Your task to perform on an android device: See recent photos Image 0: 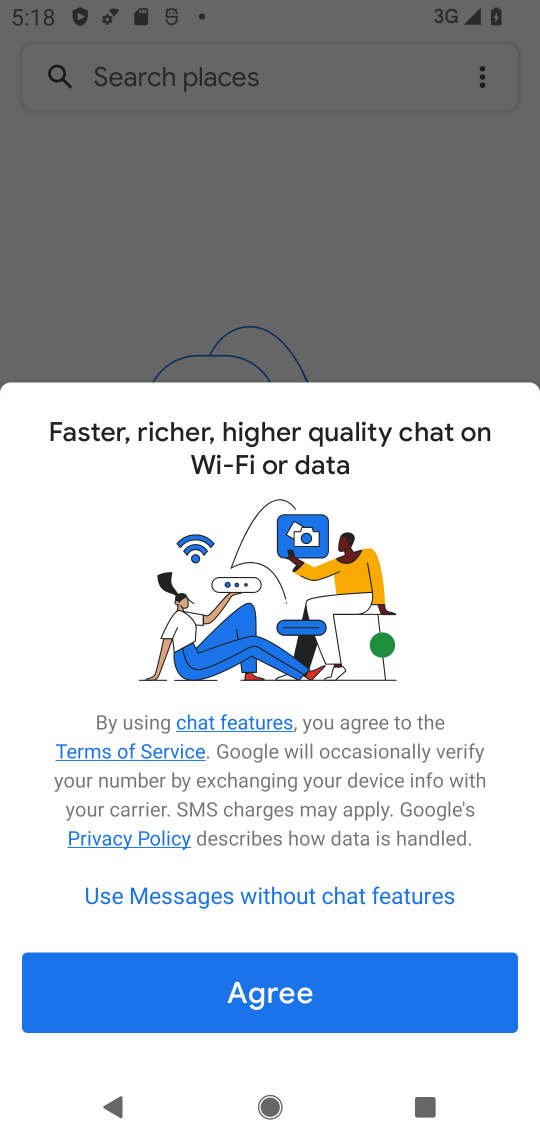
Step 0: press home button
Your task to perform on an android device: See recent photos Image 1: 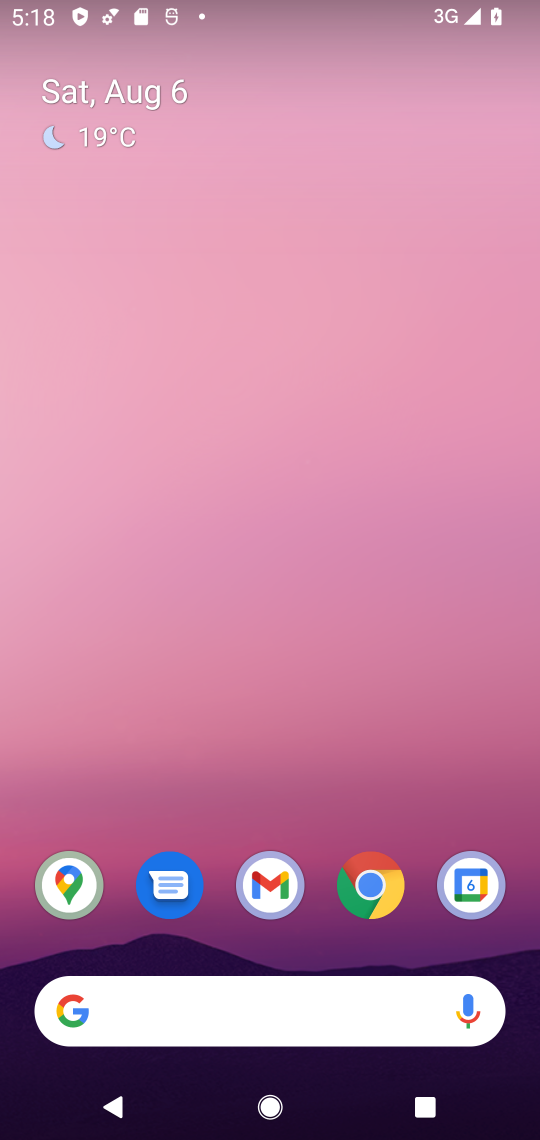
Step 1: drag from (431, 939) to (157, 33)
Your task to perform on an android device: See recent photos Image 2: 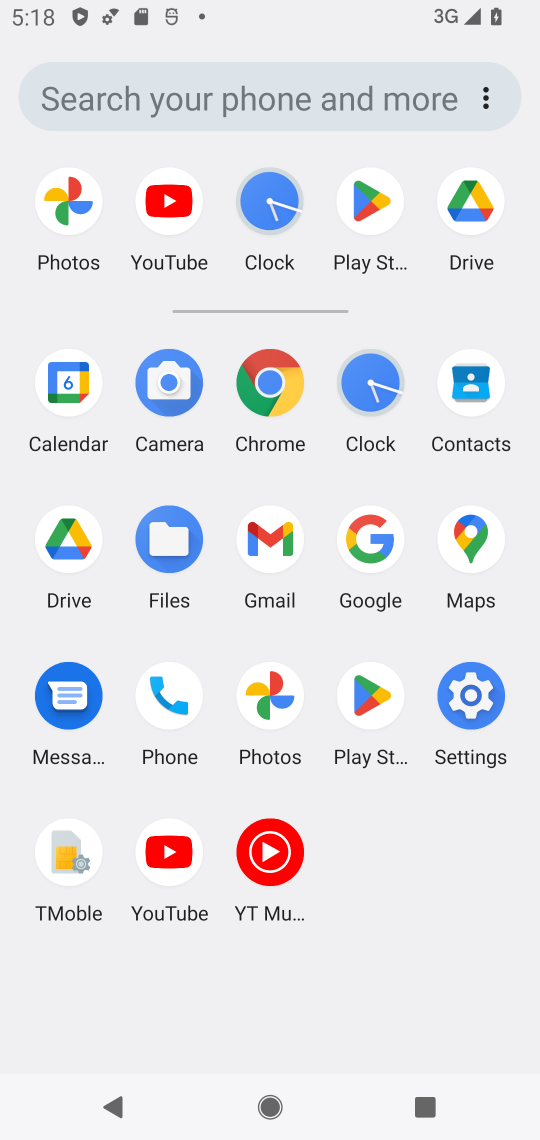
Step 2: click (297, 693)
Your task to perform on an android device: See recent photos Image 3: 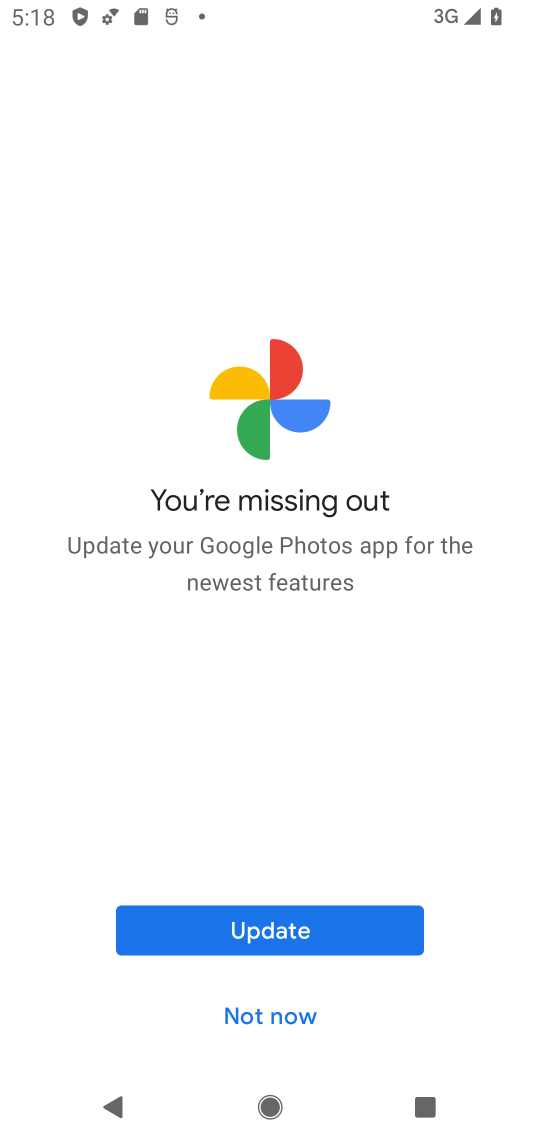
Step 3: click (274, 923)
Your task to perform on an android device: See recent photos Image 4: 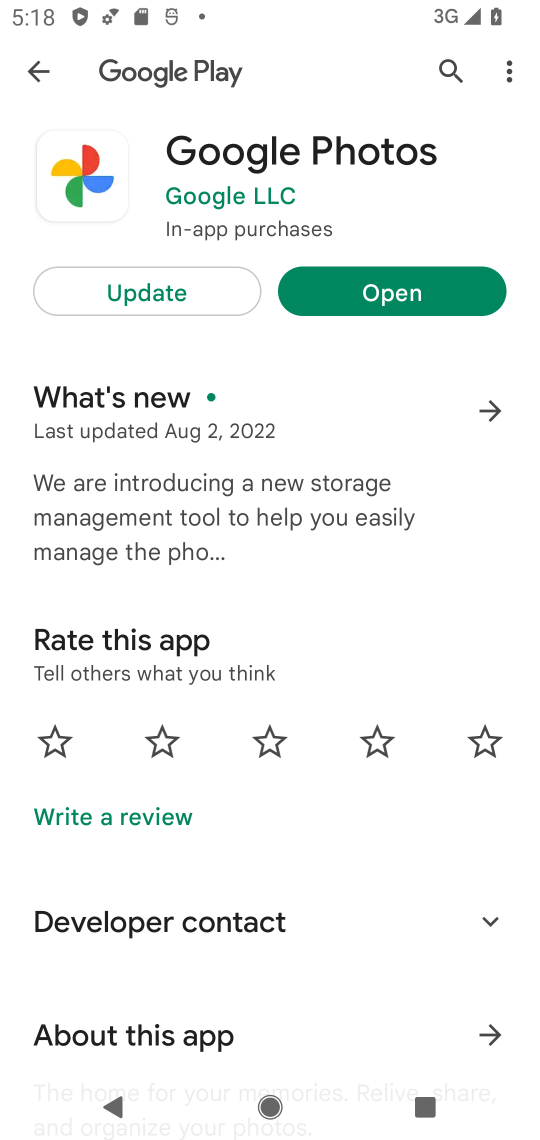
Step 4: click (131, 286)
Your task to perform on an android device: See recent photos Image 5: 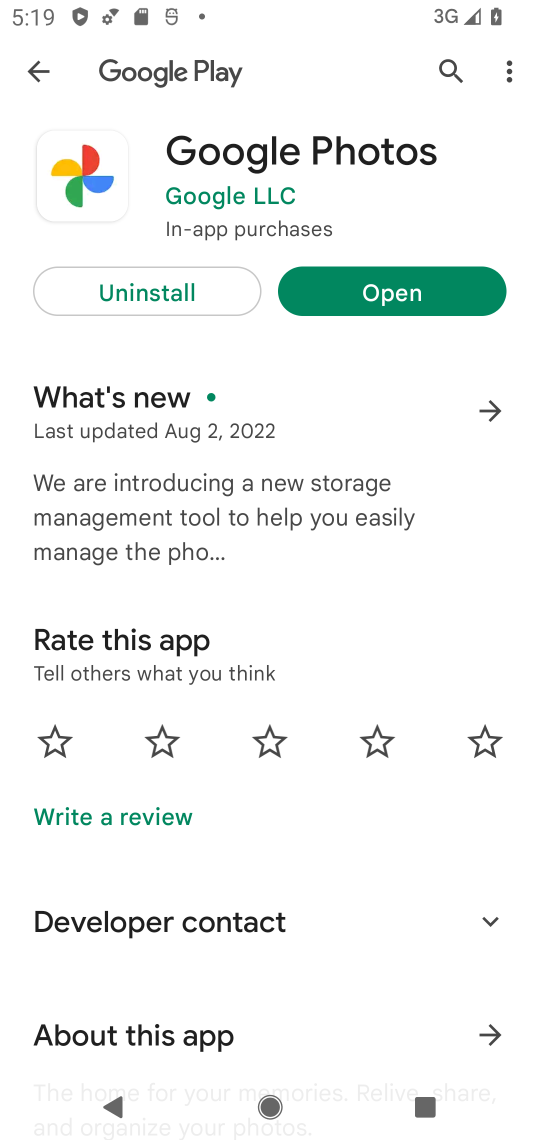
Step 5: click (406, 277)
Your task to perform on an android device: See recent photos Image 6: 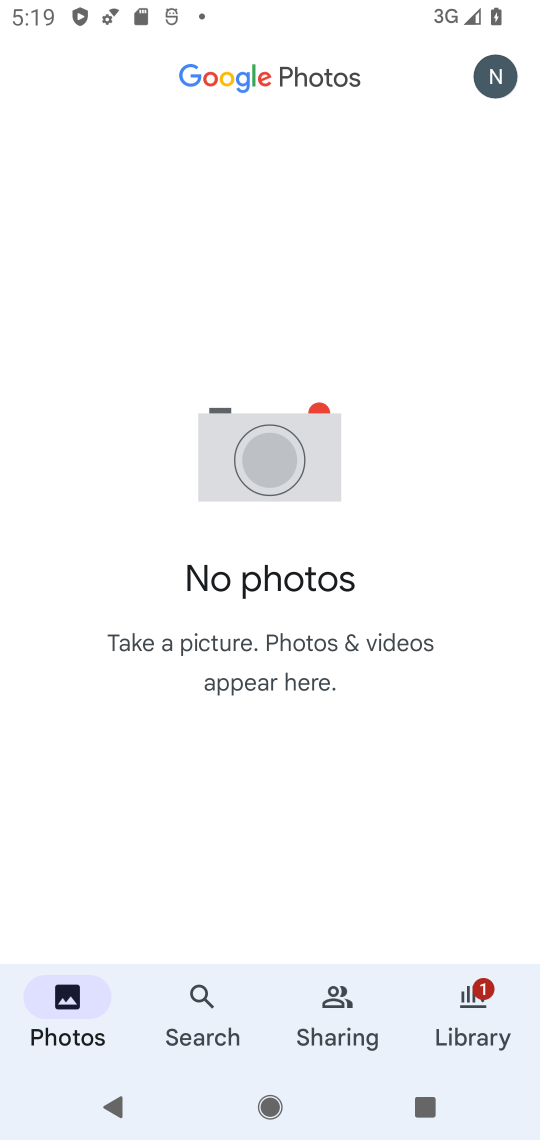
Step 6: task complete